Your task to perform on an android device: Go to notification settings Image 0: 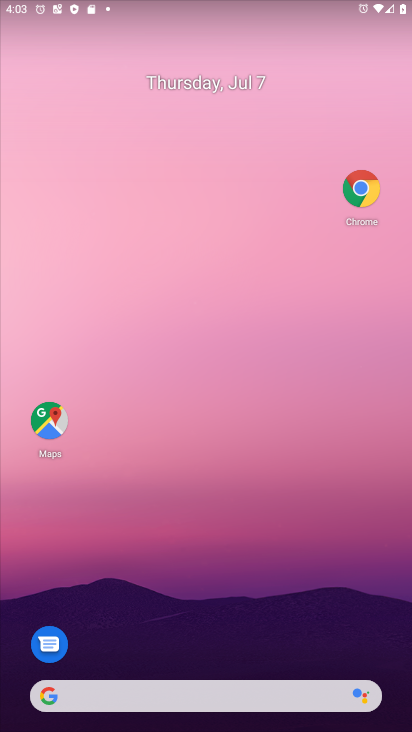
Step 0: press home button
Your task to perform on an android device: Go to notification settings Image 1: 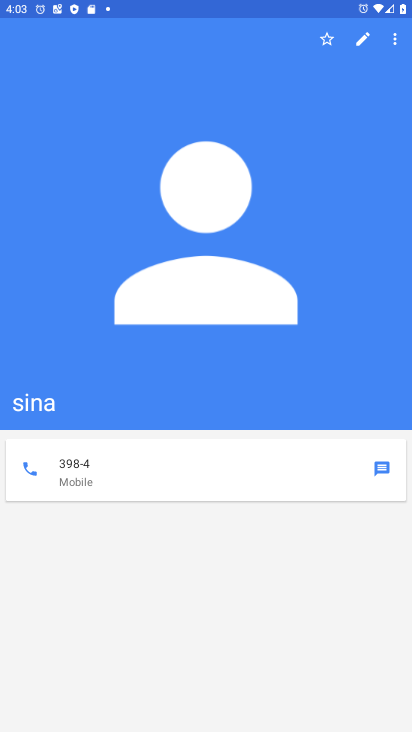
Step 1: press home button
Your task to perform on an android device: Go to notification settings Image 2: 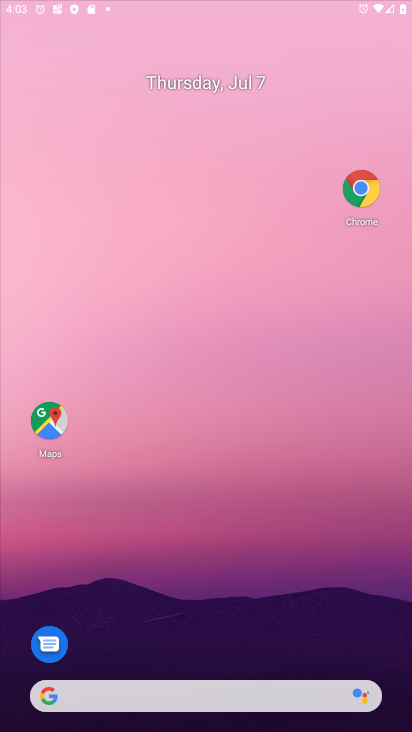
Step 2: press home button
Your task to perform on an android device: Go to notification settings Image 3: 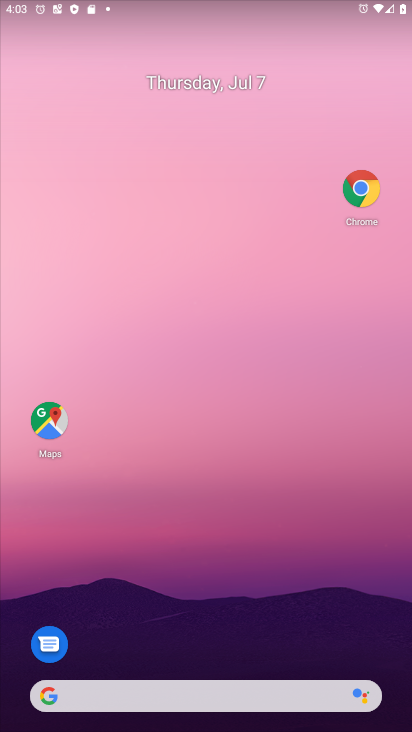
Step 3: press home button
Your task to perform on an android device: Go to notification settings Image 4: 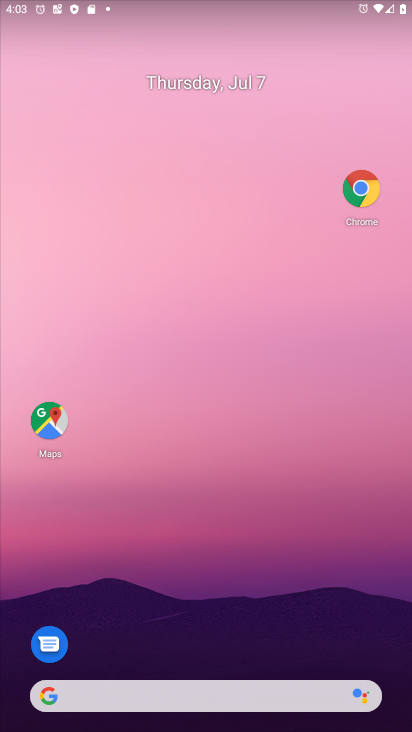
Step 4: drag from (196, 578) to (186, 37)
Your task to perform on an android device: Go to notification settings Image 5: 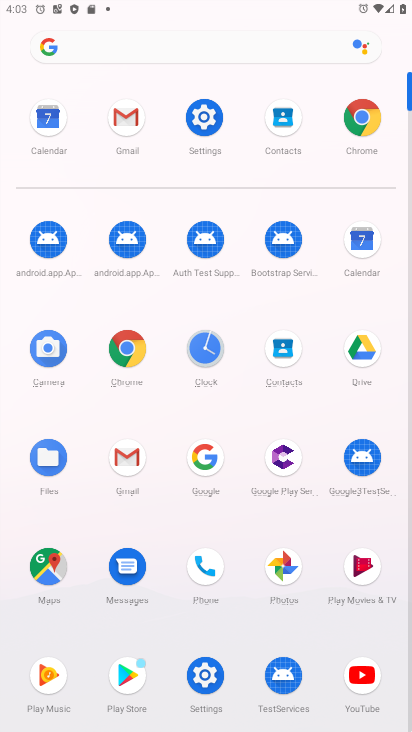
Step 5: click (201, 670)
Your task to perform on an android device: Go to notification settings Image 6: 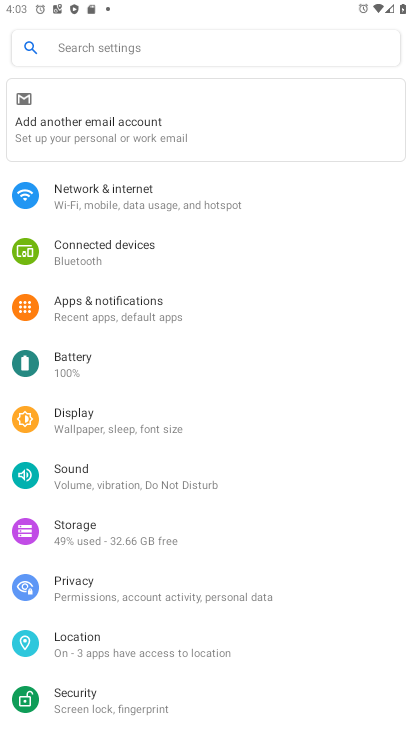
Step 6: click (86, 317)
Your task to perform on an android device: Go to notification settings Image 7: 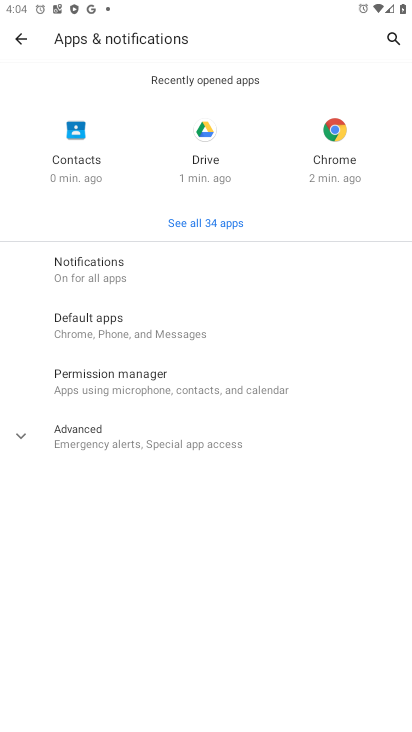
Step 7: drag from (101, 273) to (119, 327)
Your task to perform on an android device: Go to notification settings Image 8: 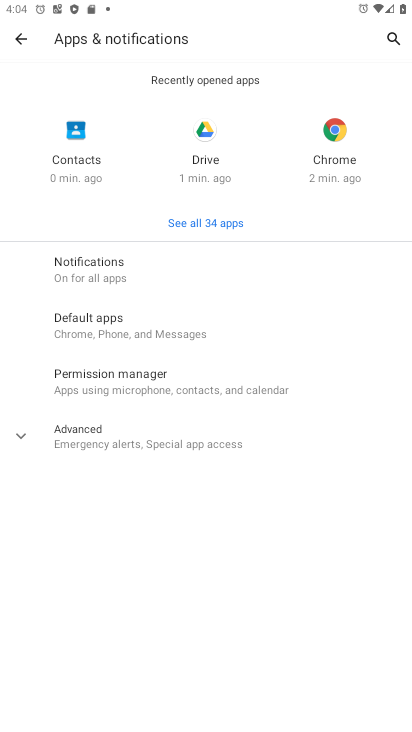
Step 8: click (119, 296)
Your task to perform on an android device: Go to notification settings Image 9: 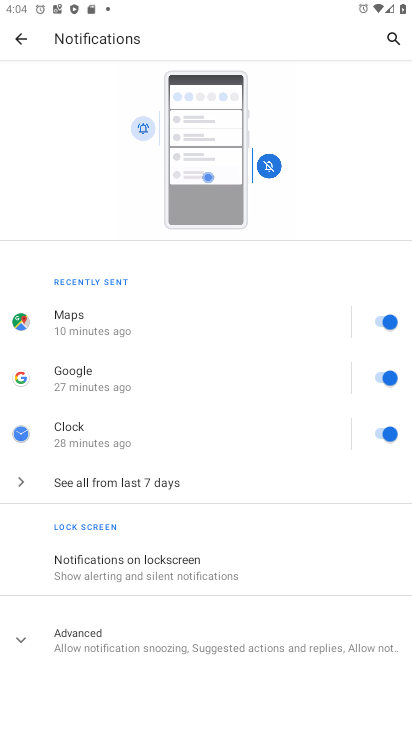
Step 9: task complete